Your task to perform on an android device: turn off javascript in the chrome app Image 0: 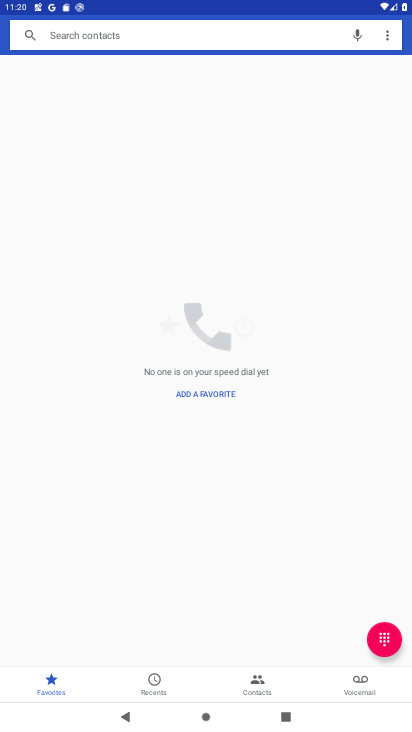
Step 0: press home button
Your task to perform on an android device: turn off javascript in the chrome app Image 1: 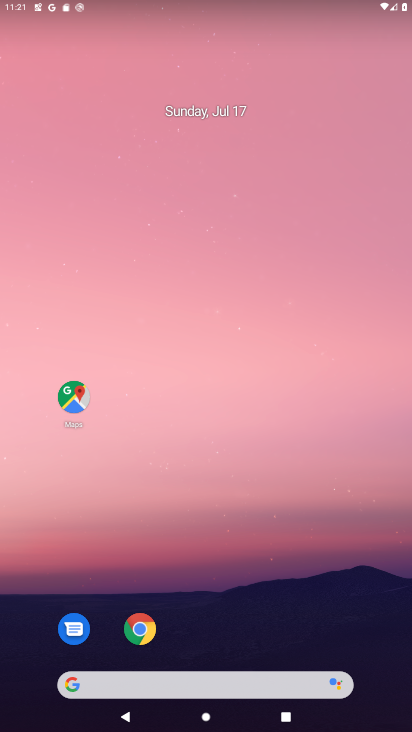
Step 1: click (141, 631)
Your task to perform on an android device: turn off javascript in the chrome app Image 2: 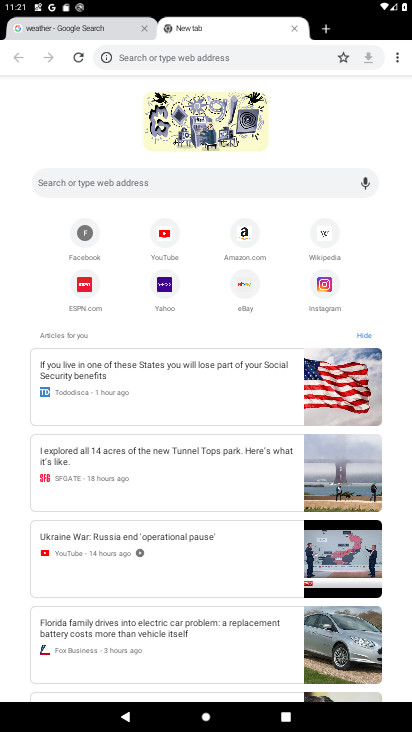
Step 2: click (398, 57)
Your task to perform on an android device: turn off javascript in the chrome app Image 3: 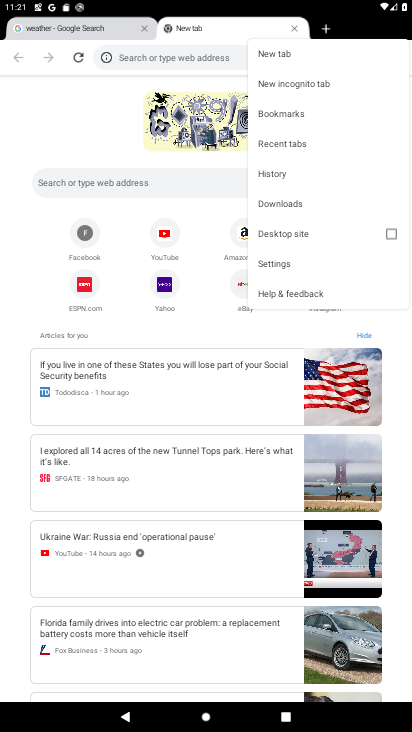
Step 3: click (284, 265)
Your task to perform on an android device: turn off javascript in the chrome app Image 4: 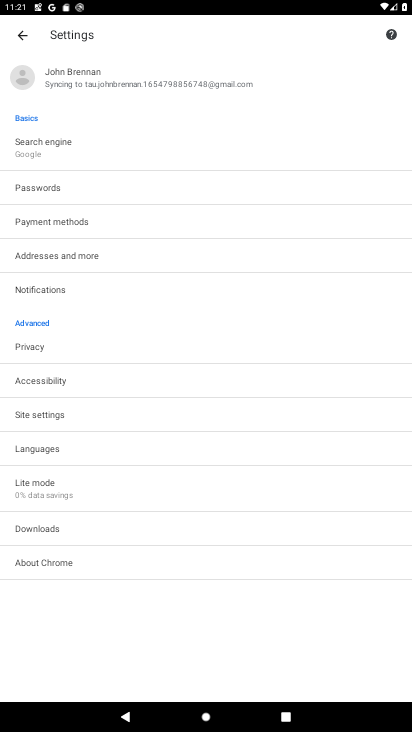
Step 4: click (55, 419)
Your task to perform on an android device: turn off javascript in the chrome app Image 5: 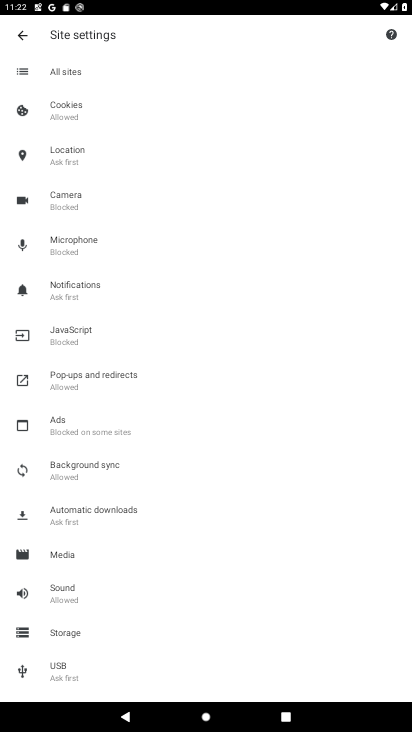
Step 5: click (74, 331)
Your task to perform on an android device: turn off javascript in the chrome app Image 6: 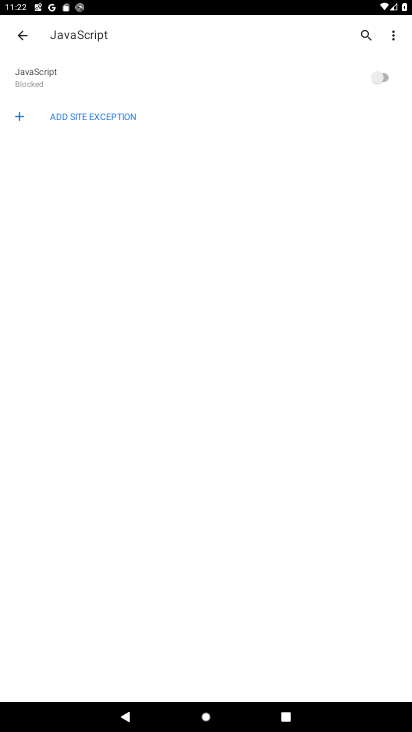
Step 6: task complete